Your task to perform on an android device: read, delete, or share a saved page in the chrome app Image 0: 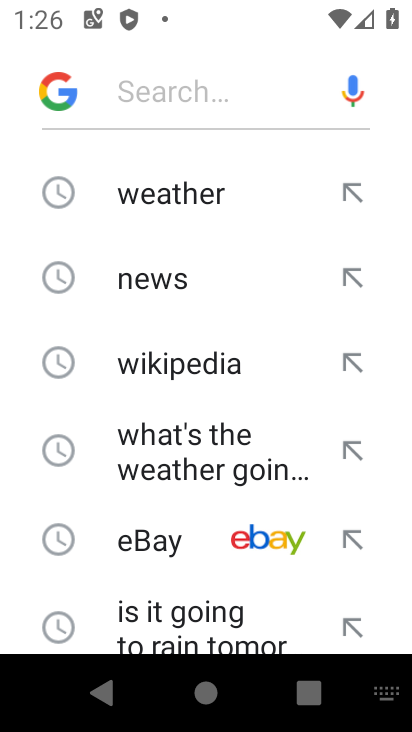
Step 0: press home button
Your task to perform on an android device: read, delete, or share a saved page in the chrome app Image 1: 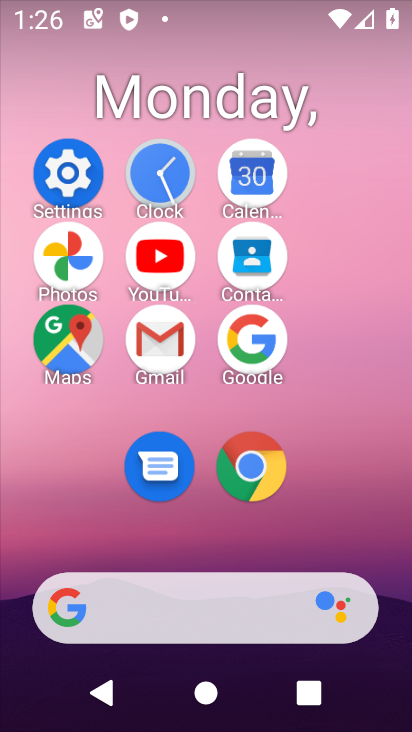
Step 1: click (243, 468)
Your task to perform on an android device: read, delete, or share a saved page in the chrome app Image 2: 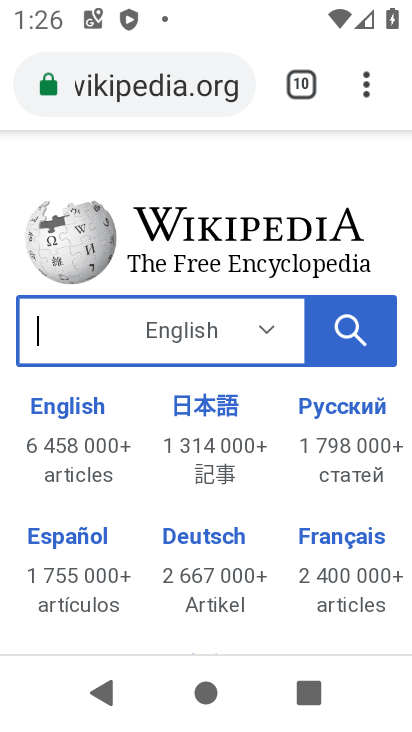
Step 2: click (365, 80)
Your task to perform on an android device: read, delete, or share a saved page in the chrome app Image 3: 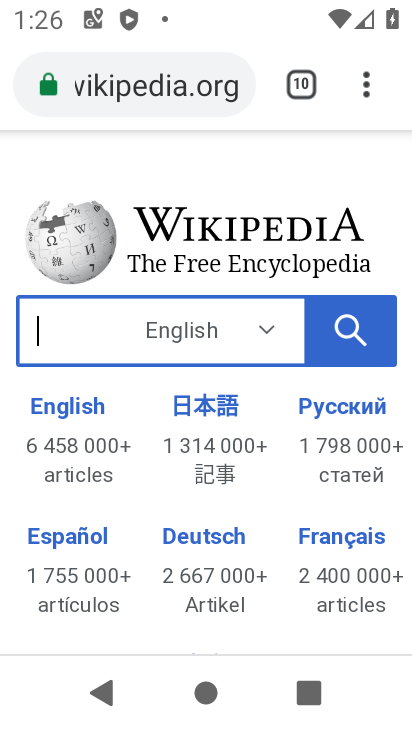
Step 3: click (382, 81)
Your task to perform on an android device: read, delete, or share a saved page in the chrome app Image 4: 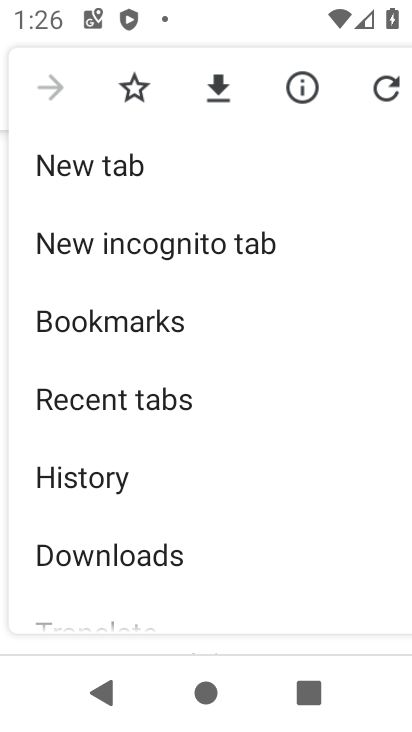
Step 4: drag from (202, 475) to (189, 169)
Your task to perform on an android device: read, delete, or share a saved page in the chrome app Image 5: 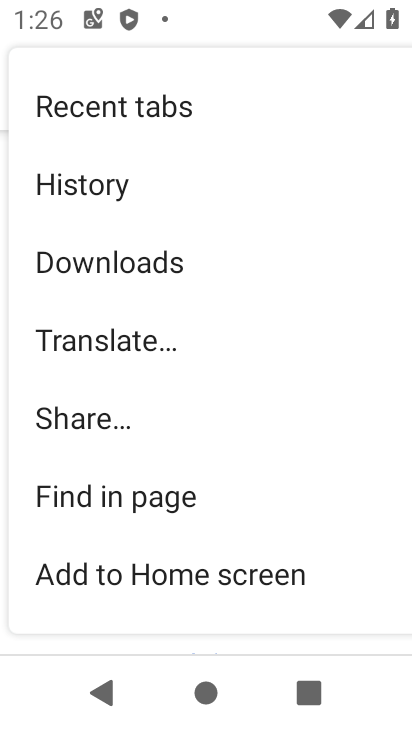
Step 5: drag from (241, 539) to (197, 130)
Your task to perform on an android device: read, delete, or share a saved page in the chrome app Image 6: 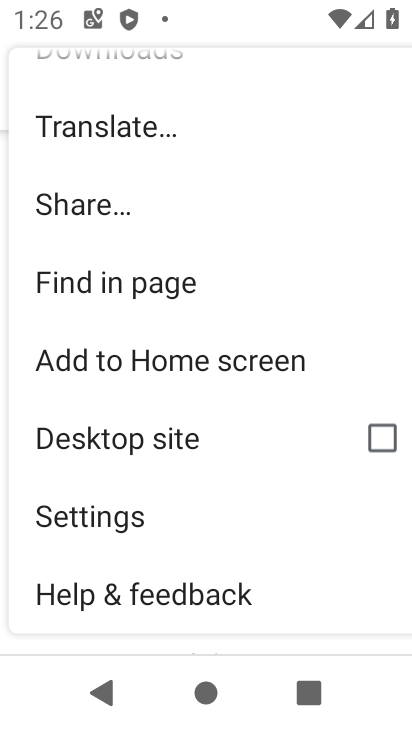
Step 6: drag from (189, 169) to (232, 552)
Your task to perform on an android device: read, delete, or share a saved page in the chrome app Image 7: 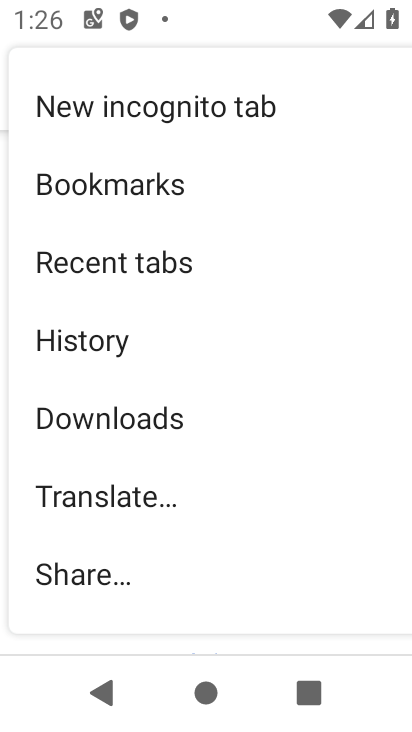
Step 7: click (159, 414)
Your task to perform on an android device: read, delete, or share a saved page in the chrome app Image 8: 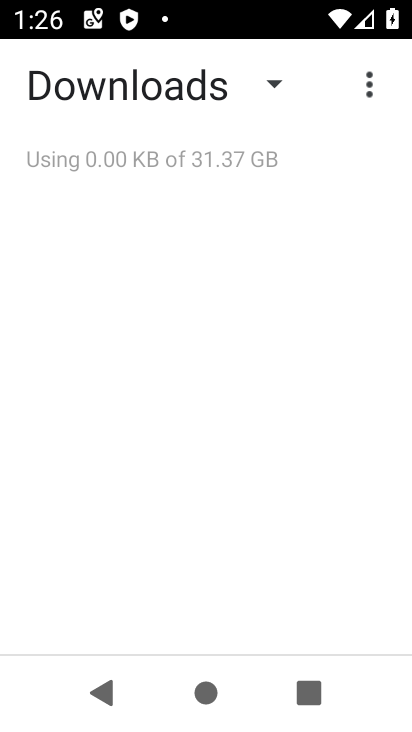
Step 8: task complete